Your task to perform on an android device: turn off location Image 0: 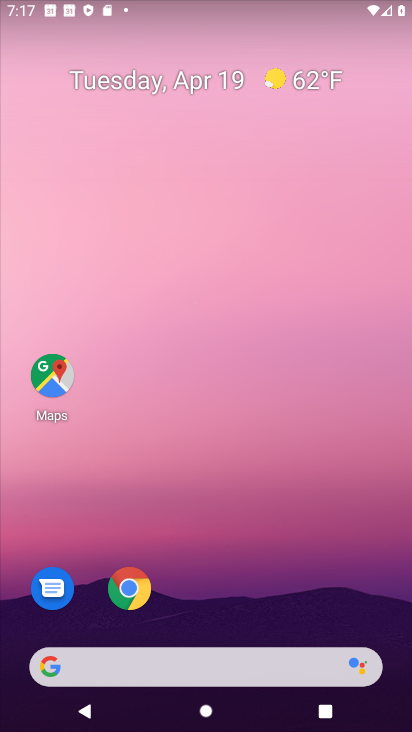
Step 0: drag from (256, 599) to (212, 27)
Your task to perform on an android device: turn off location Image 1: 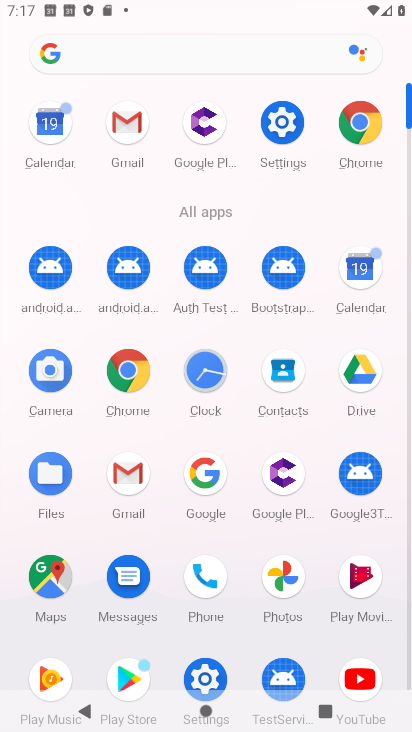
Step 1: click (280, 122)
Your task to perform on an android device: turn off location Image 2: 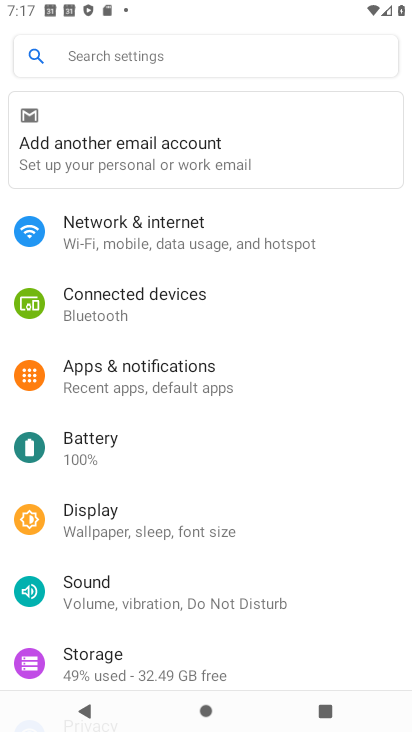
Step 2: drag from (166, 571) to (156, 289)
Your task to perform on an android device: turn off location Image 3: 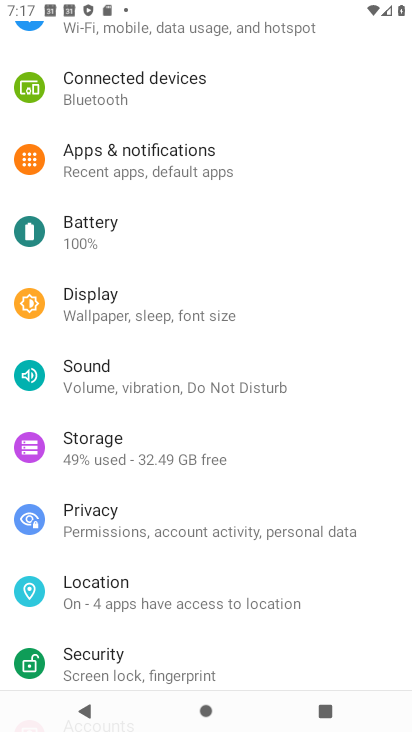
Step 3: click (83, 584)
Your task to perform on an android device: turn off location Image 4: 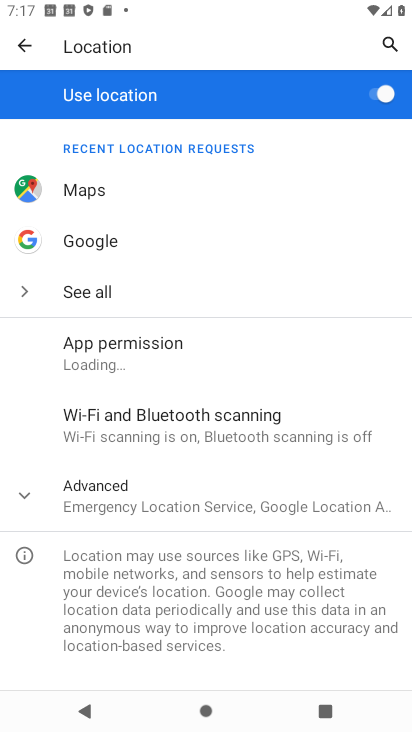
Step 4: click (378, 99)
Your task to perform on an android device: turn off location Image 5: 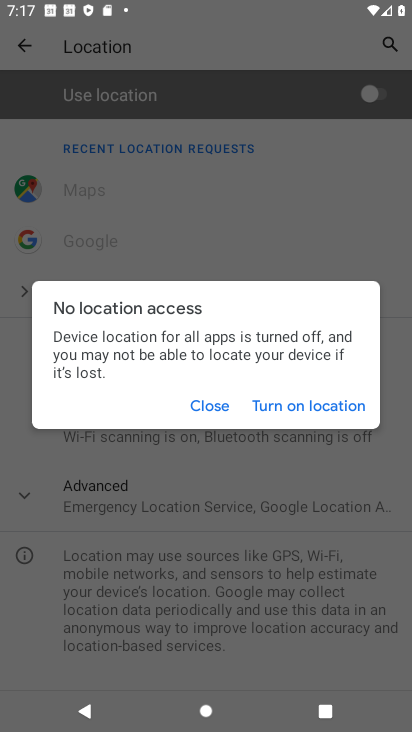
Step 5: click (211, 402)
Your task to perform on an android device: turn off location Image 6: 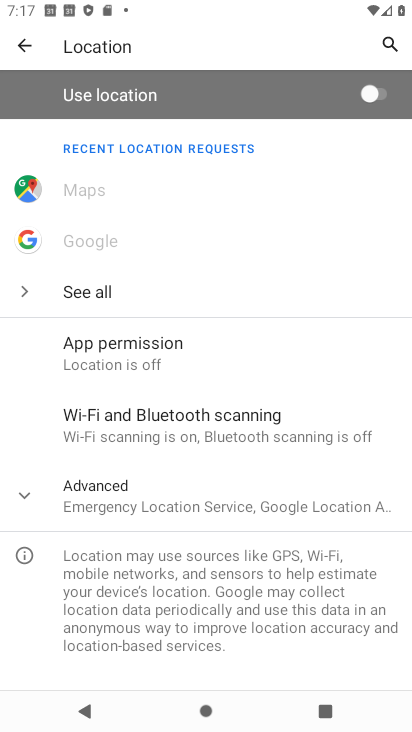
Step 6: task complete